Your task to perform on an android device: Show me productivity apps on the Play Store Image 0: 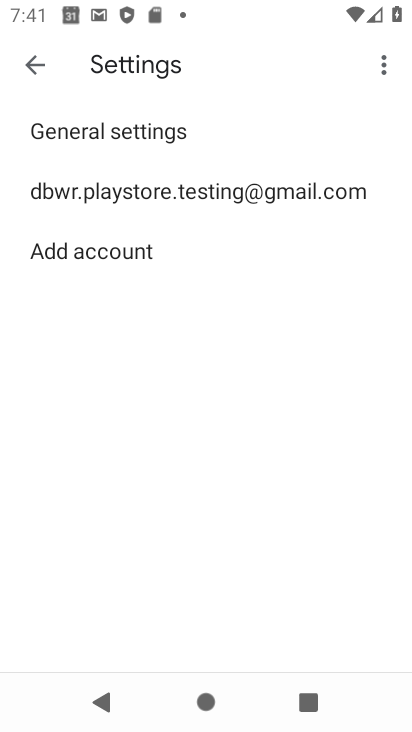
Step 0: press home button
Your task to perform on an android device: Show me productivity apps on the Play Store Image 1: 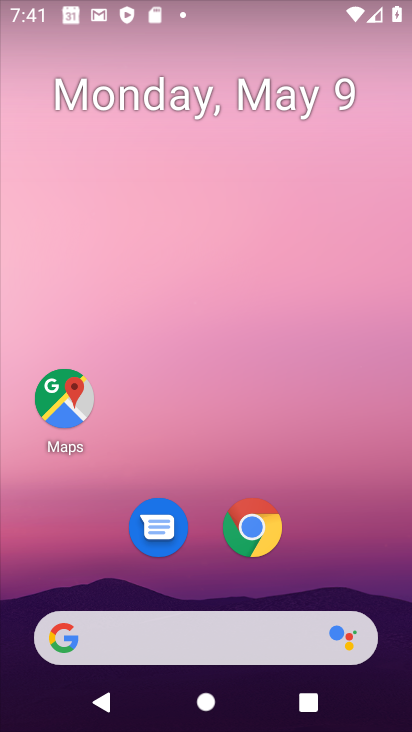
Step 1: drag from (319, 606) to (286, 120)
Your task to perform on an android device: Show me productivity apps on the Play Store Image 2: 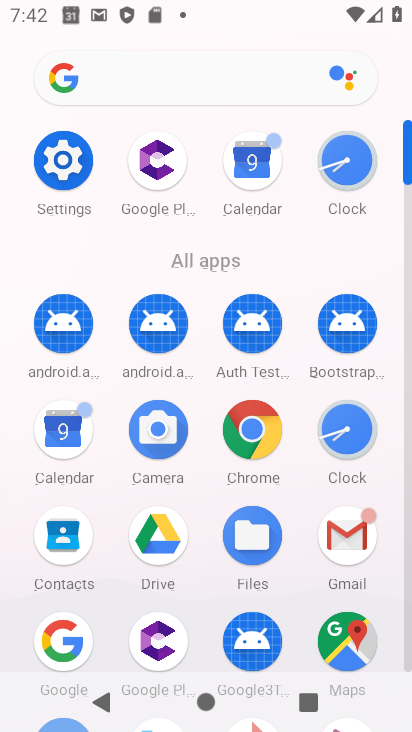
Step 2: drag from (269, 561) to (280, 348)
Your task to perform on an android device: Show me productivity apps on the Play Store Image 3: 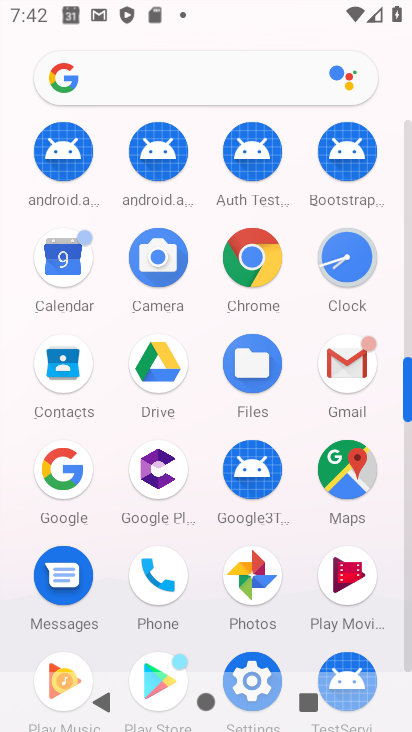
Step 3: drag from (215, 531) to (231, 332)
Your task to perform on an android device: Show me productivity apps on the Play Store Image 4: 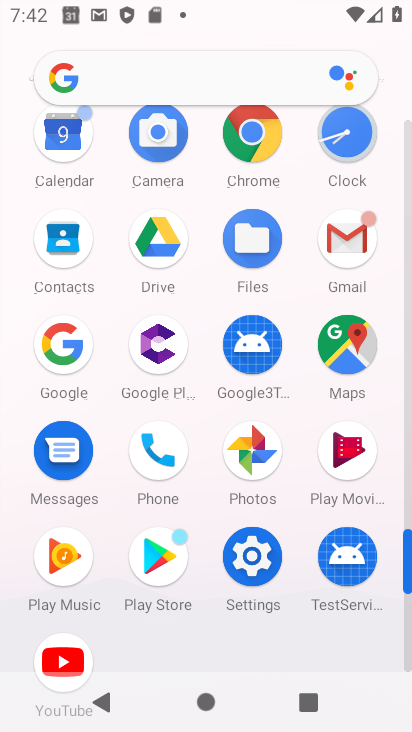
Step 4: click (170, 569)
Your task to perform on an android device: Show me productivity apps on the Play Store Image 5: 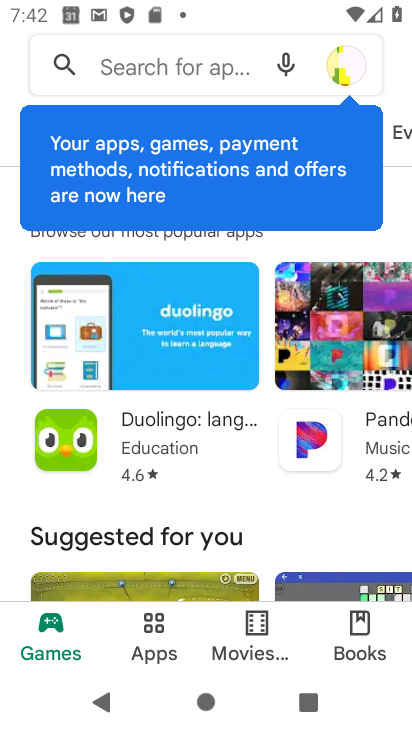
Step 5: click (168, 48)
Your task to perform on an android device: Show me productivity apps on the Play Store Image 6: 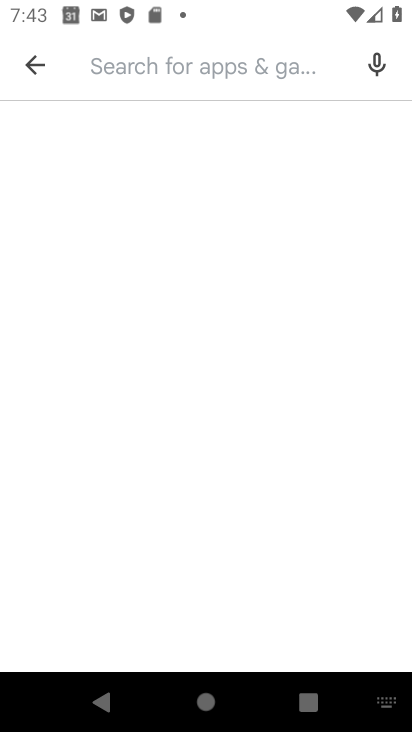
Step 6: type "productiivity aaps"
Your task to perform on an android device: Show me productivity apps on the Play Store Image 7: 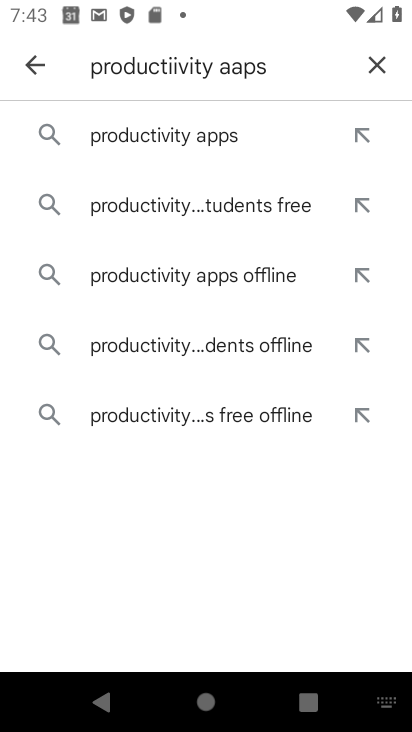
Step 7: click (170, 138)
Your task to perform on an android device: Show me productivity apps on the Play Store Image 8: 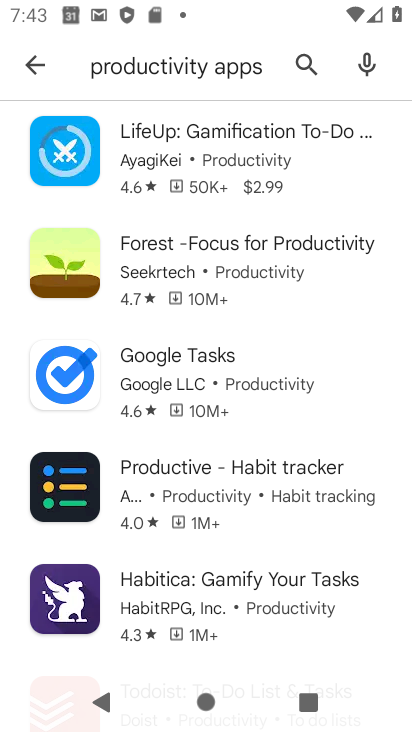
Step 8: task complete